Your task to perform on an android device: change your default location settings in chrome Image 0: 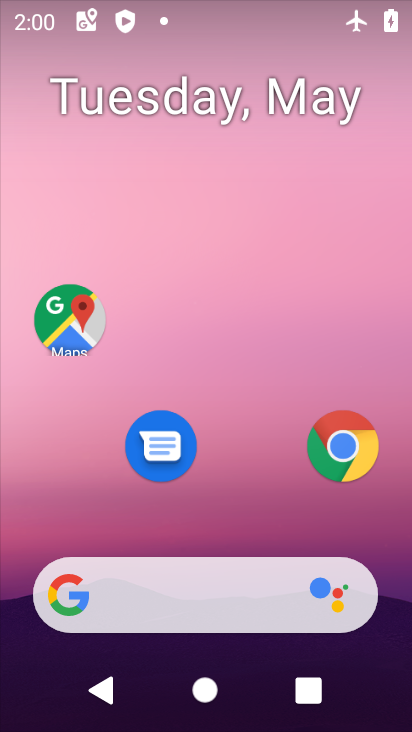
Step 0: drag from (190, 574) to (216, 4)
Your task to perform on an android device: change your default location settings in chrome Image 1: 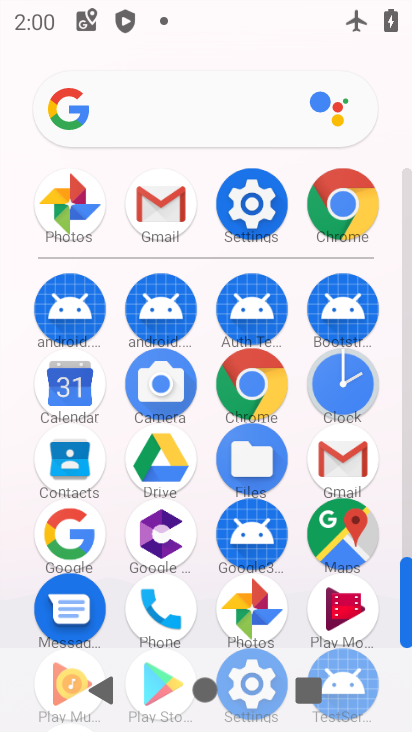
Step 1: click (332, 199)
Your task to perform on an android device: change your default location settings in chrome Image 2: 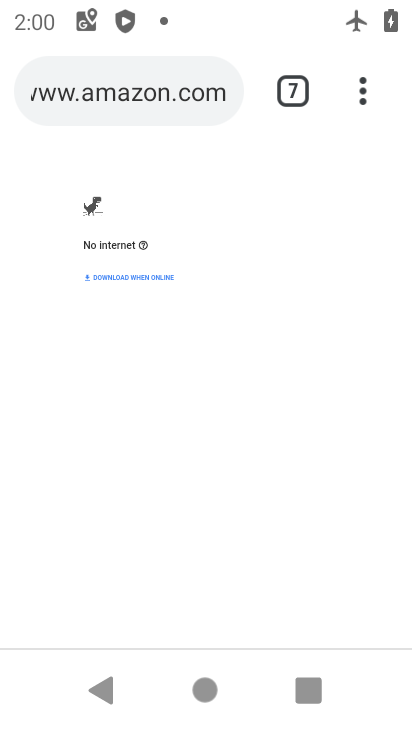
Step 2: click (362, 96)
Your task to perform on an android device: change your default location settings in chrome Image 3: 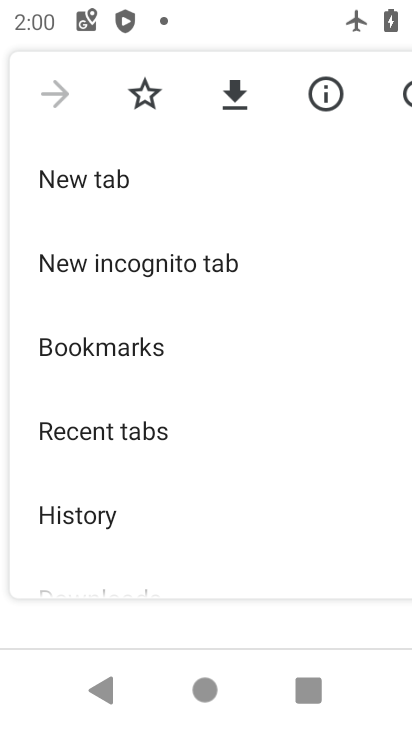
Step 3: drag from (192, 505) to (139, 64)
Your task to perform on an android device: change your default location settings in chrome Image 4: 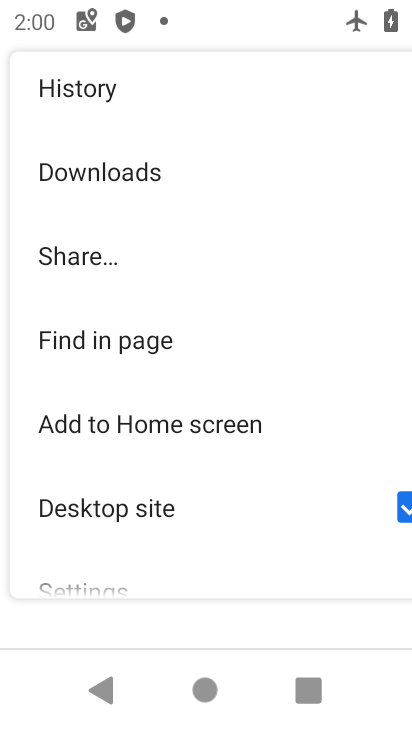
Step 4: click (91, 571)
Your task to perform on an android device: change your default location settings in chrome Image 5: 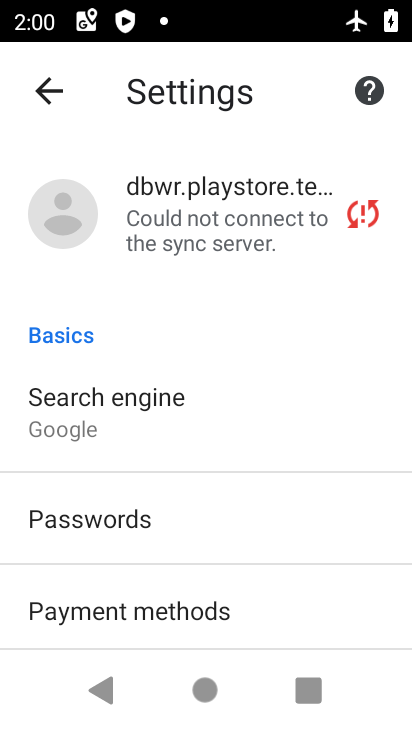
Step 5: drag from (98, 571) to (57, 233)
Your task to perform on an android device: change your default location settings in chrome Image 6: 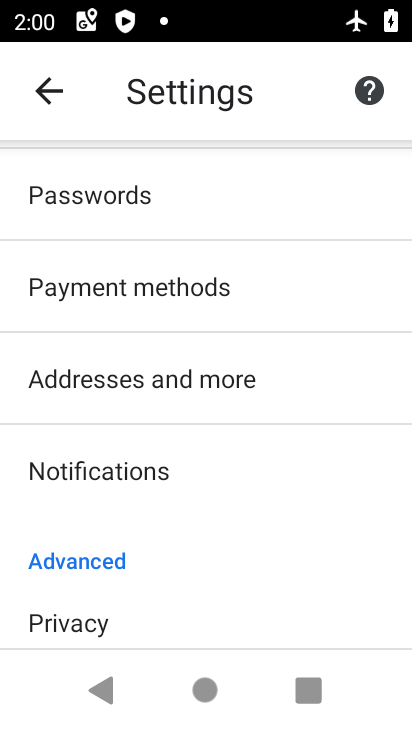
Step 6: drag from (138, 583) to (118, 275)
Your task to perform on an android device: change your default location settings in chrome Image 7: 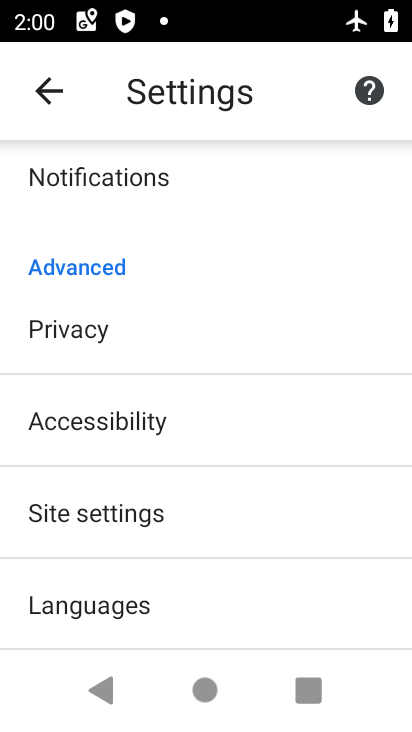
Step 7: click (119, 532)
Your task to perform on an android device: change your default location settings in chrome Image 8: 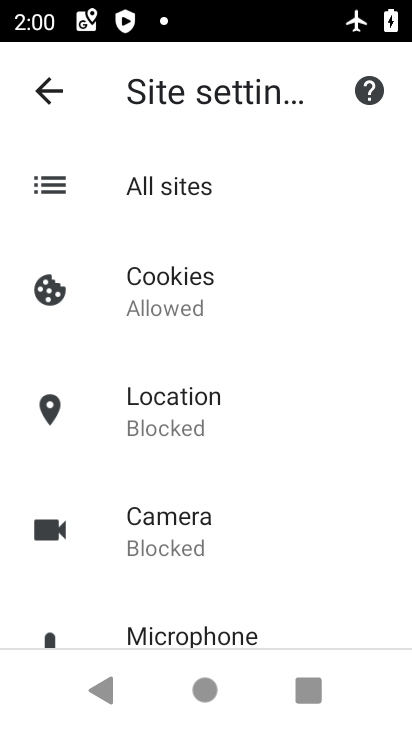
Step 8: click (192, 431)
Your task to perform on an android device: change your default location settings in chrome Image 9: 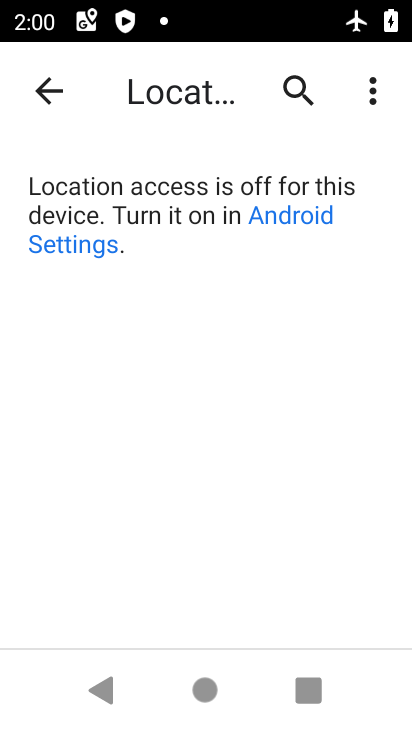
Step 9: task complete